Your task to perform on an android device: Check the news Image 0: 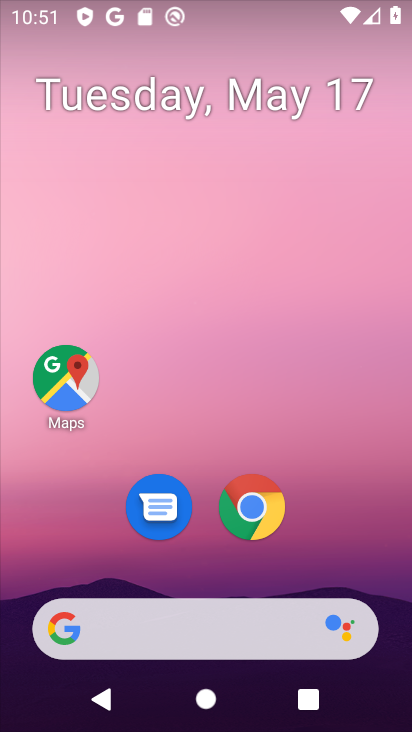
Step 0: drag from (0, 303) to (411, 215)
Your task to perform on an android device: Check the news Image 1: 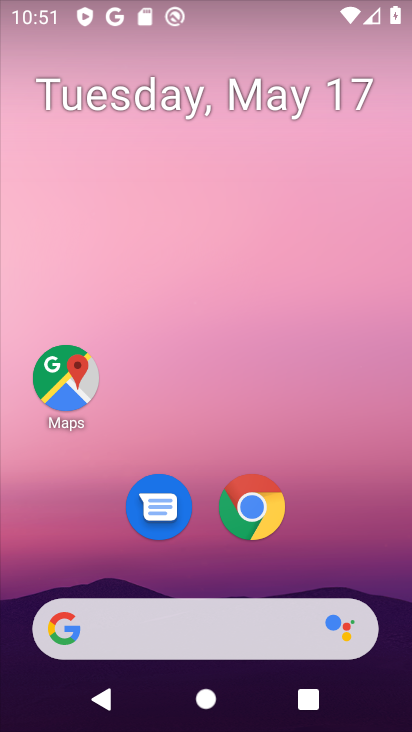
Step 1: task complete